Your task to perform on an android device: Open the Play Movies app and select the watchlist tab. Image 0: 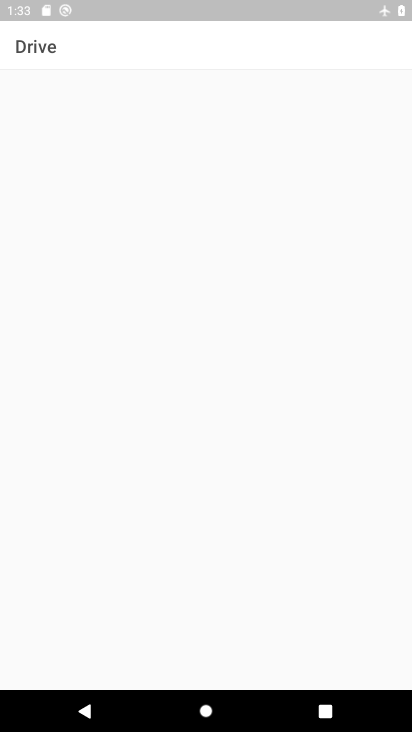
Step 0: drag from (293, 514) to (364, 19)
Your task to perform on an android device: Open the Play Movies app and select the watchlist tab. Image 1: 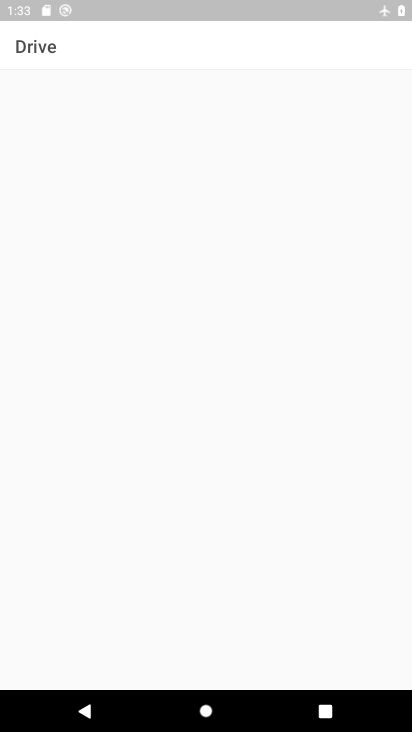
Step 1: press home button
Your task to perform on an android device: Open the Play Movies app and select the watchlist tab. Image 2: 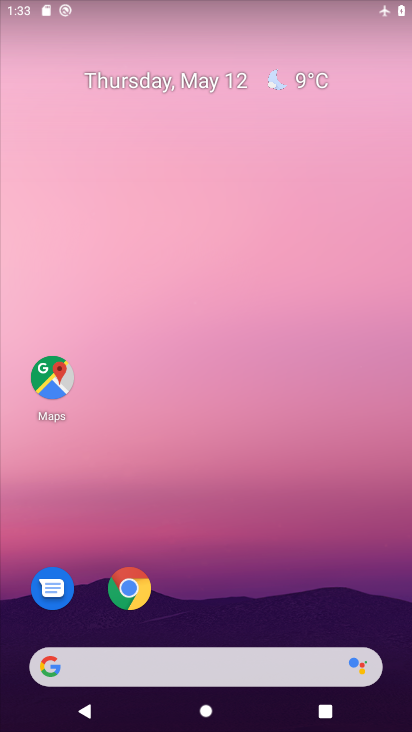
Step 2: drag from (299, 522) to (355, 77)
Your task to perform on an android device: Open the Play Movies app and select the watchlist tab. Image 3: 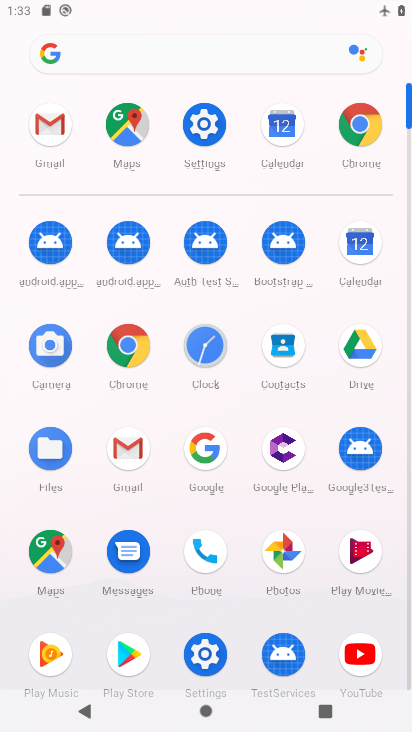
Step 3: click (201, 655)
Your task to perform on an android device: Open the Play Movies app and select the watchlist tab. Image 4: 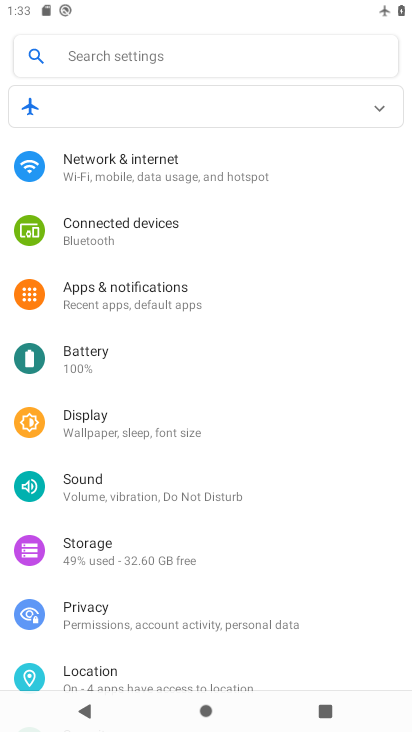
Step 4: press home button
Your task to perform on an android device: Open the Play Movies app and select the watchlist tab. Image 5: 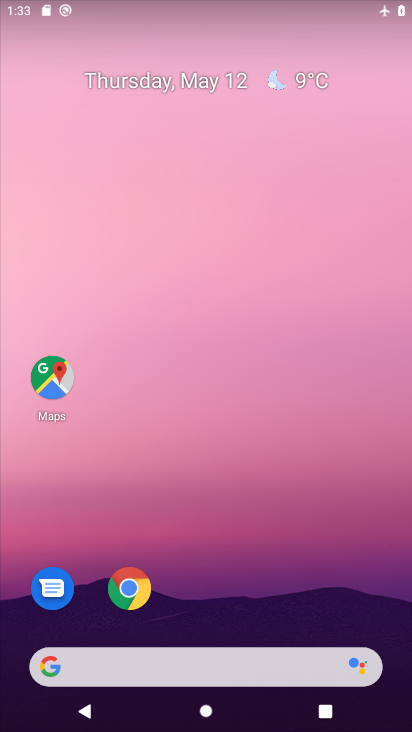
Step 5: drag from (258, 554) to (269, 3)
Your task to perform on an android device: Open the Play Movies app and select the watchlist tab. Image 6: 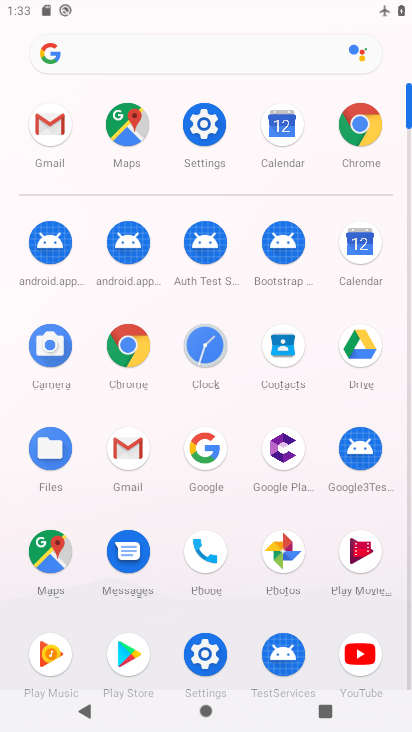
Step 6: drag from (398, 641) to (411, 385)
Your task to perform on an android device: Open the Play Movies app and select the watchlist tab. Image 7: 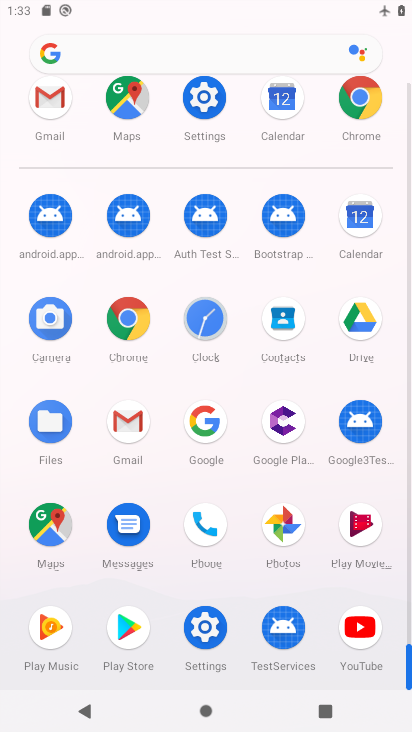
Step 7: click (370, 500)
Your task to perform on an android device: Open the Play Movies app and select the watchlist tab. Image 8: 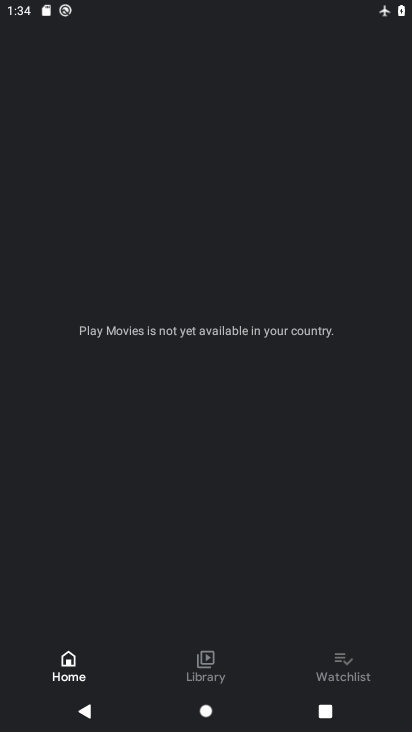
Step 8: click (342, 663)
Your task to perform on an android device: Open the Play Movies app and select the watchlist tab. Image 9: 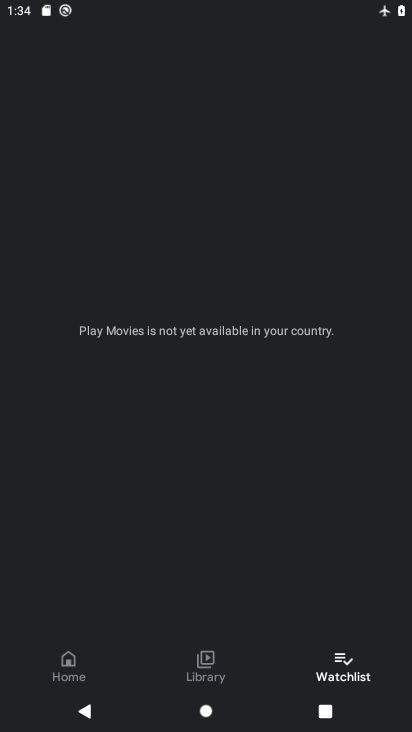
Step 9: task complete